Your task to perform on an android device: change text size in settings app Image 0: 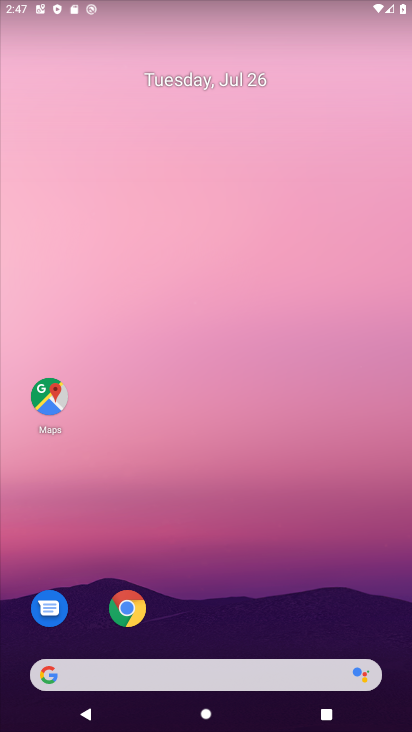
Step 0: drag from (275, 529) to (255, 124)
Your task to perform on an android device: change text size in settings app Image 1: 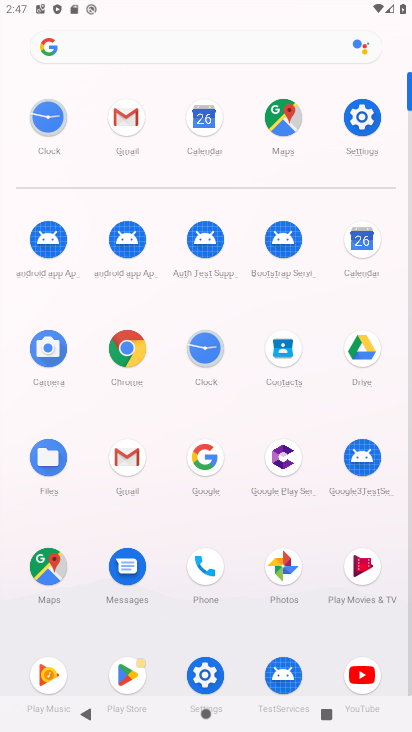
Step 1: click (369, 123)
Your task to perform on an android device: change text size in settings app Image 2: 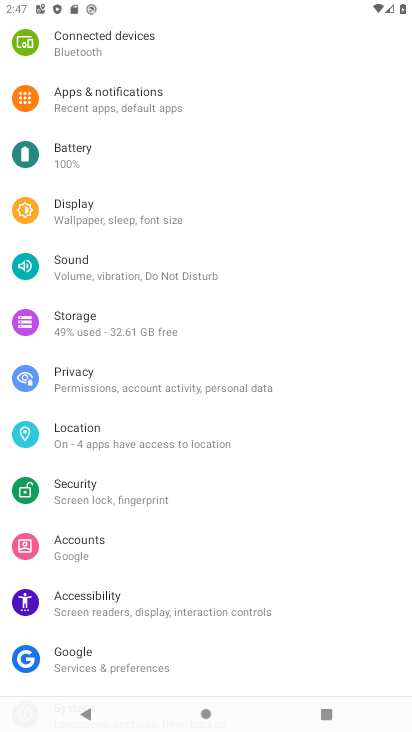
Step 2: click (104, 213)
Your task to perform on an android device: change text size in settings app Image 3: 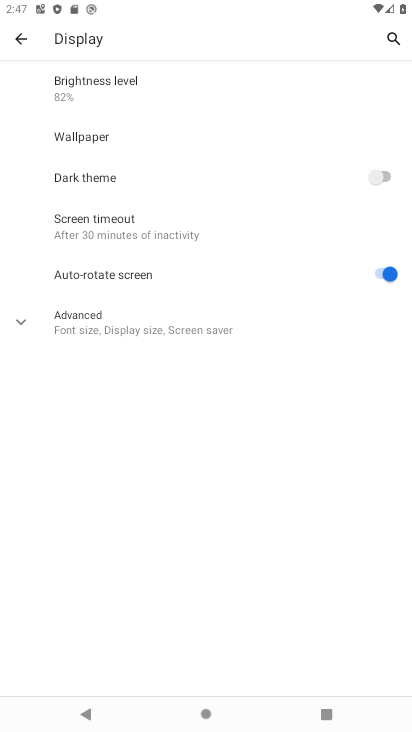
Step 3: task complete